Your task to perform on an android device: turn on translation in the chrome app Image 0: 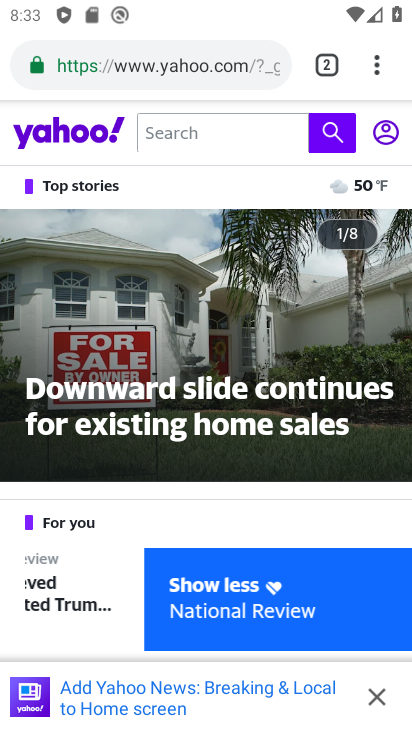
Step 0: press home button
Your task to perform on an android device: turn on translation in the chrome app Image 1: 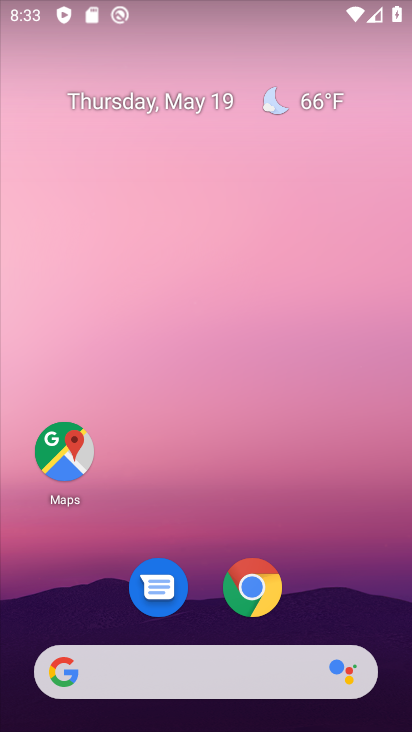
Step 1: drag from (269, 710) to (249, 266)
Your task to perform on an android device: turn on translation in the chrome app Image 2: 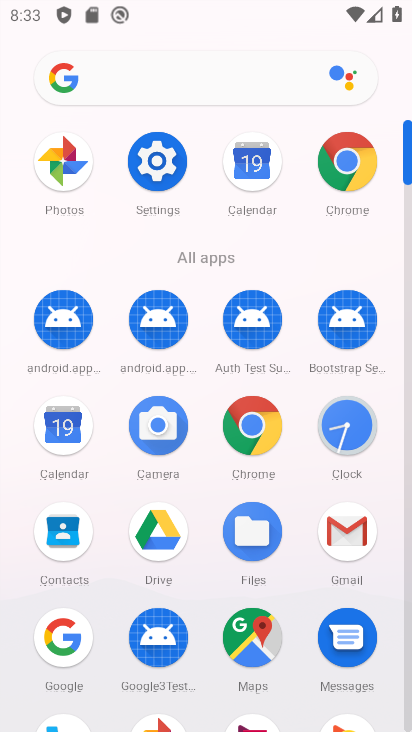
Step 2: click (358, 154)
Your task to perform on an android device: turn on translation in the chrome app Image 3: 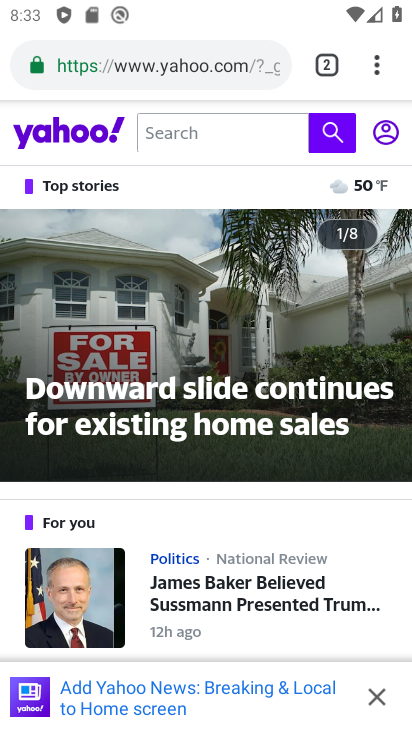
Step 3: click (381, 72)
Your task to perform on an android device: turn on translation in the chrome app Image 4: 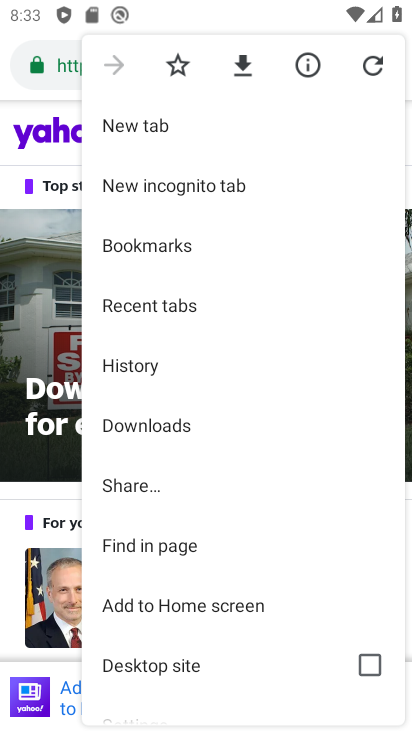
Step 4: drag from (141, 580) to (234, 248)
Your task to perform on an android device: turn on translation in the chrome app Image 5: 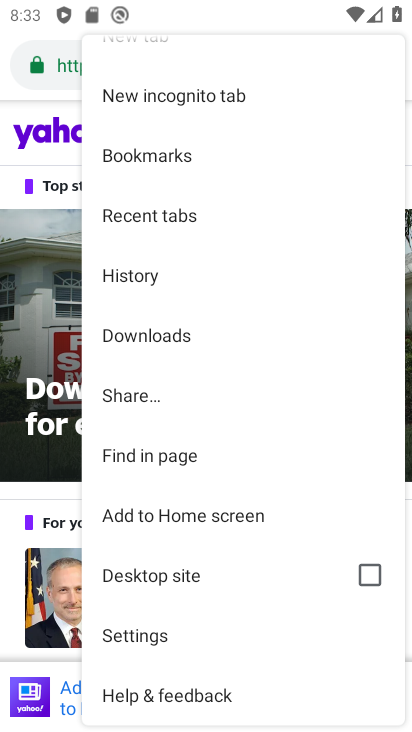
Step 5: click (162, 632)
Your task to perform on an android device: turn on translation in the chrome app Image 6: 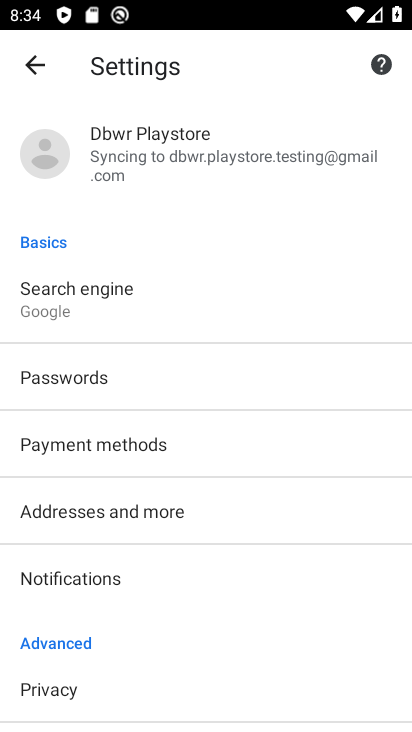
Step 6: drag from (174, 590) to (257, 358)
Your task to perform on an android device: turn on translation in the chrome app Image 7: 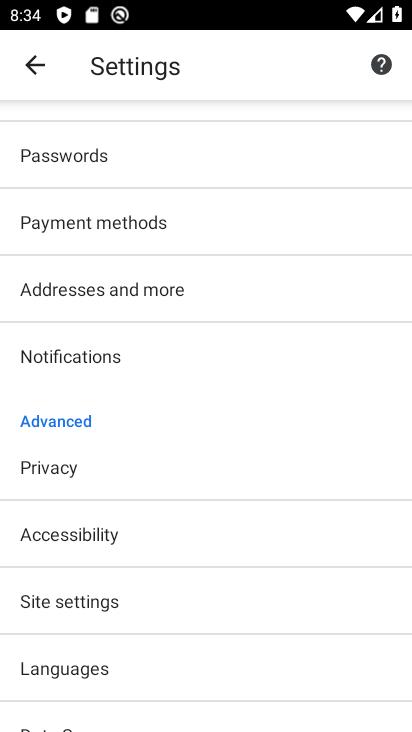
Step 7: drag from (169, 583) to (181, 478)
Your task to perform on an android device: turn on translation in the chrome app Image 8: 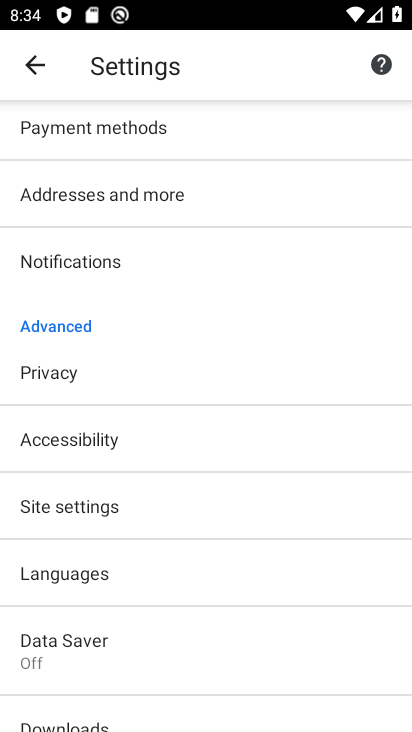
Step 8: click (73, 659)
Your task to perform on an android device: turn on translation in the chrome app Image 9: 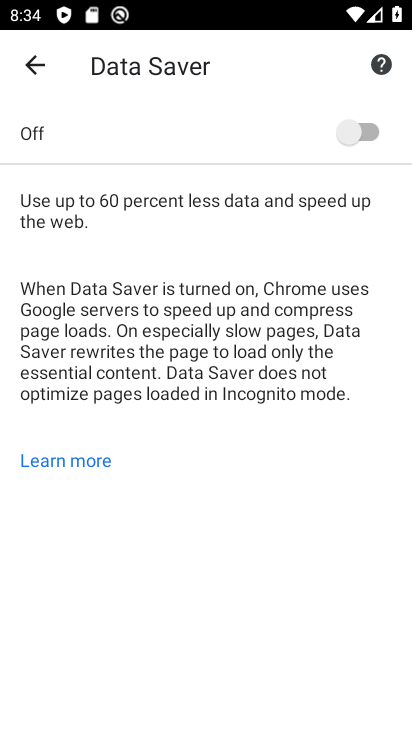
Step 9: click (70, 671)
Your task to perform on an android device: turn on translation in the chrome app Image 10: 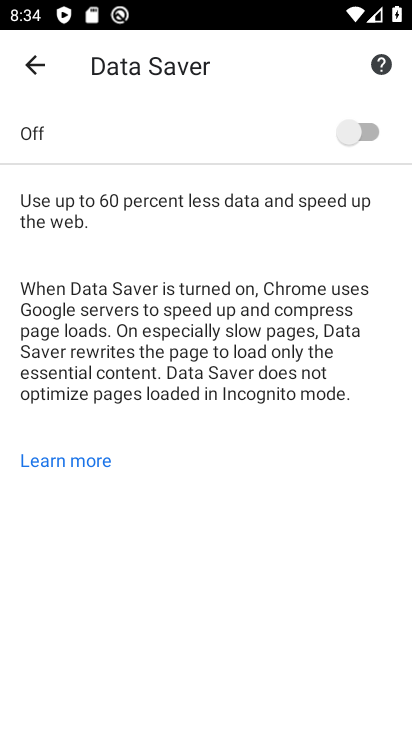
Step 10: click (147, 575)
Your task to perform on an android device: turn on translation in the chrome app Image 11: 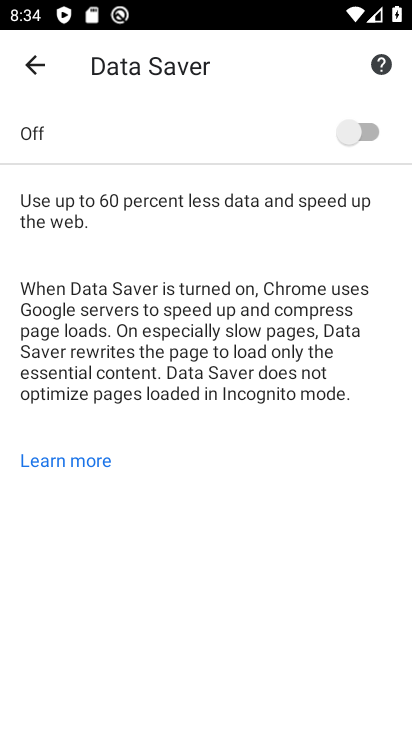
Step 11: click (352, 142)
Your task to perform on an android device: turn on translation in the chrome app Image 12: 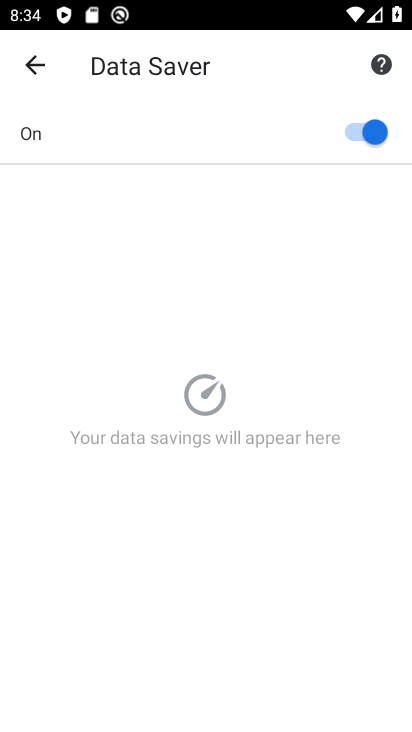
Step 12: task complete